Your task to perform on an android device: turn off picture-in-picture Image 0: 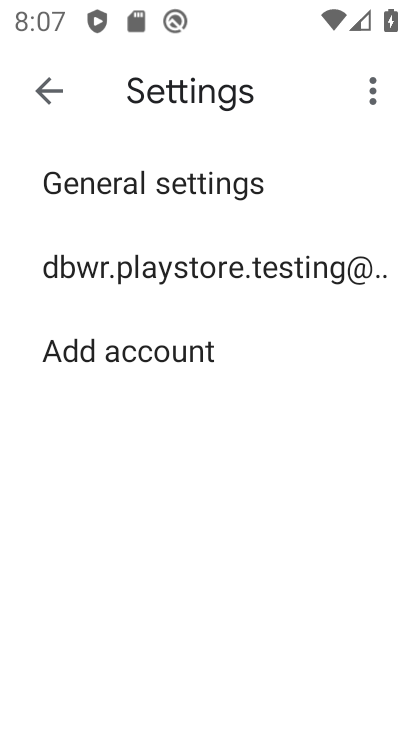
Step 0: press home button
Your task to perform on an android device: turn off picture-in-picture Image 1: 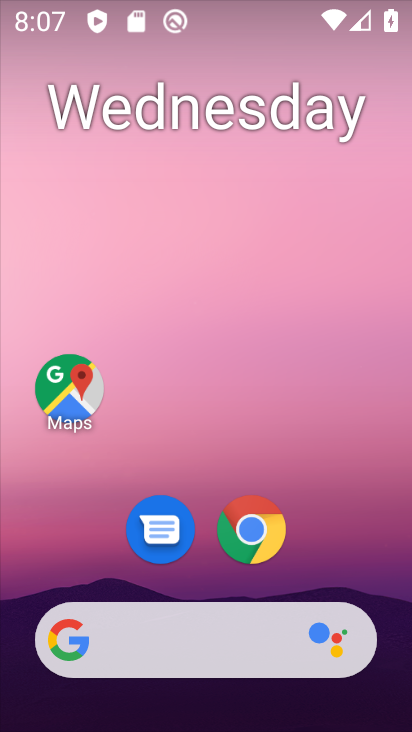
Step 1: click (278, 525)
Your task to perform on an android device: turn off picture-in-picture Image 2: 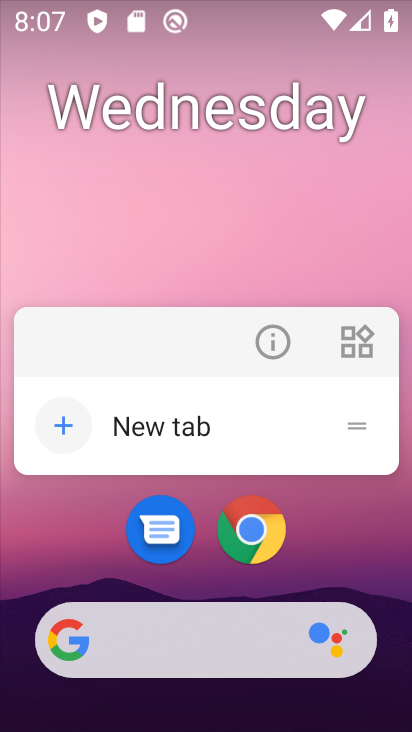
Step 2: click (284, 352)
Your task to perform on an android device: turn off picture-in-picture Image 3: 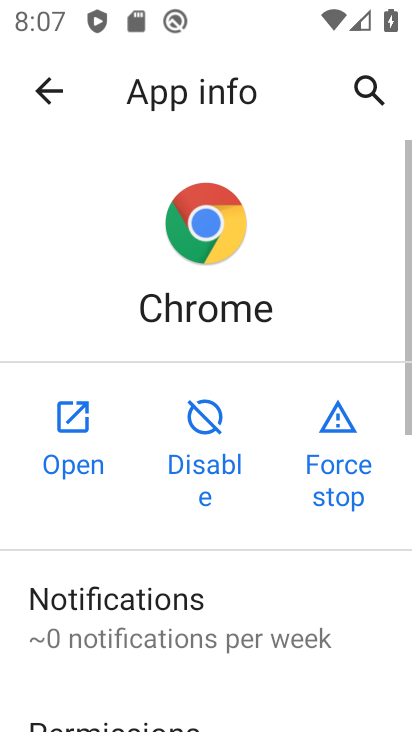
Step 3: drag from (209, 660) to (187, 146)
Your task to perform on an android device: turn off picture-in-picture Image 4: 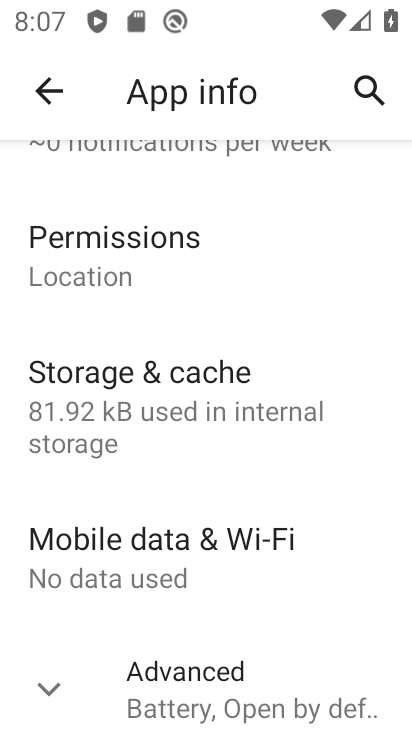
Step 4: click (177, 692)
Your task to perform on an android device: turn off picture-in-picture Image 5: 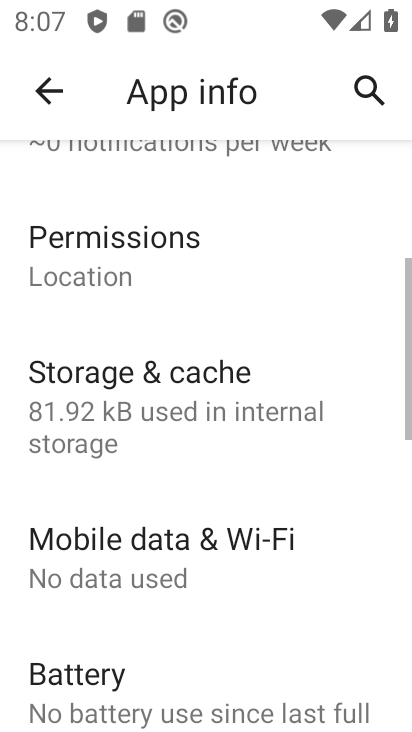
Step 5: drag from (176, 682) to (237, 49)
Your task to perform on an android device: turn off picture-in-picture Image 6: 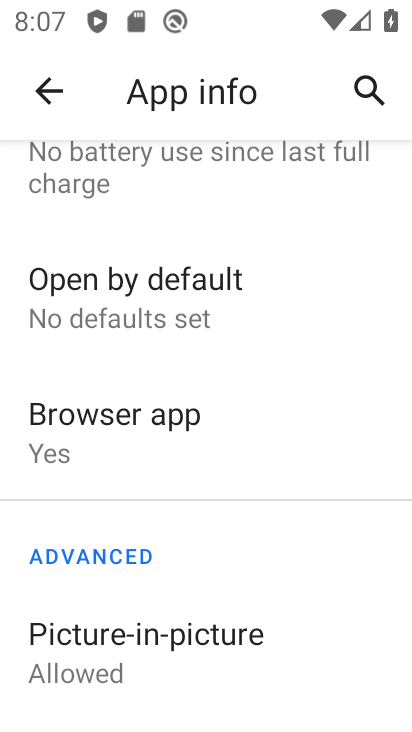
Step 6: click (240, 645)
Your task to perform on an android device: turn off picture-in-picture Image 7: 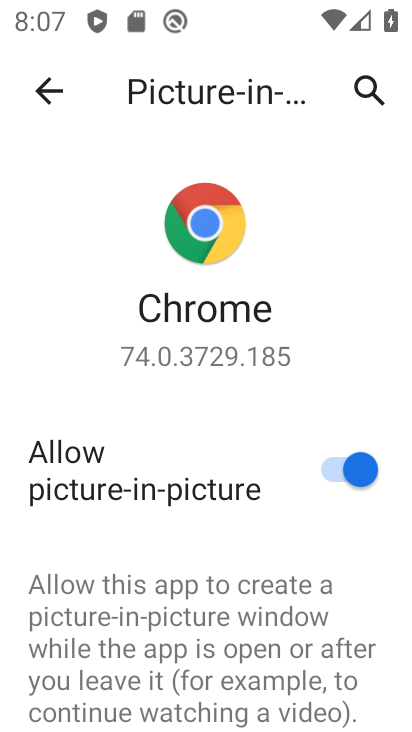
Step 7: click (330, 465)
Your task to perform on an android device: turn off picture-in-picture Image 8: 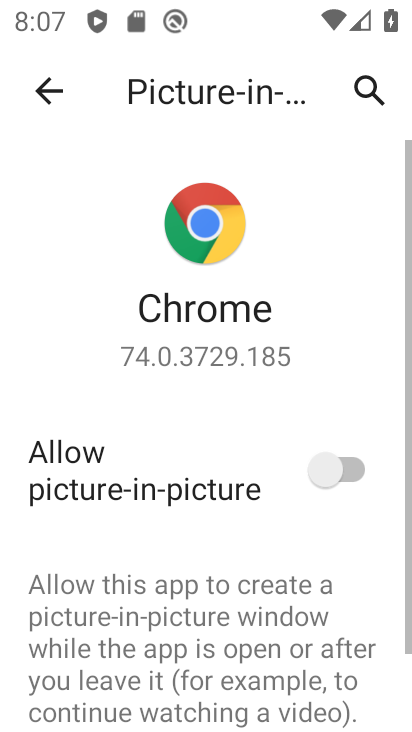
Step 8: task complete